Your task to perform on an android device: Search for sushi restaurants on Maps Image 0: 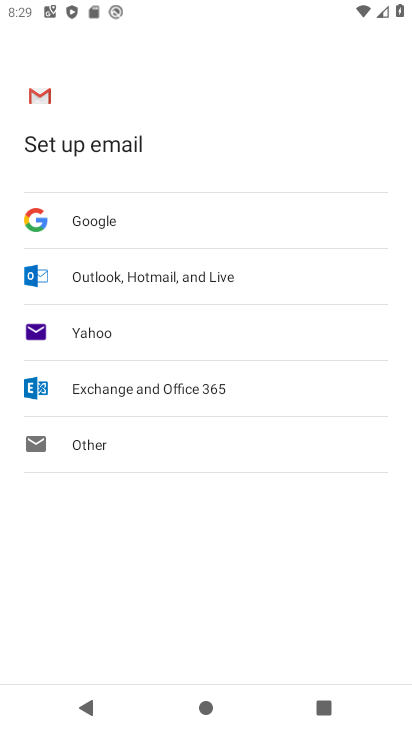
Step 0: press home button
Your task to perform on an android device: Search for sushi restaurants on Maps Image 1: 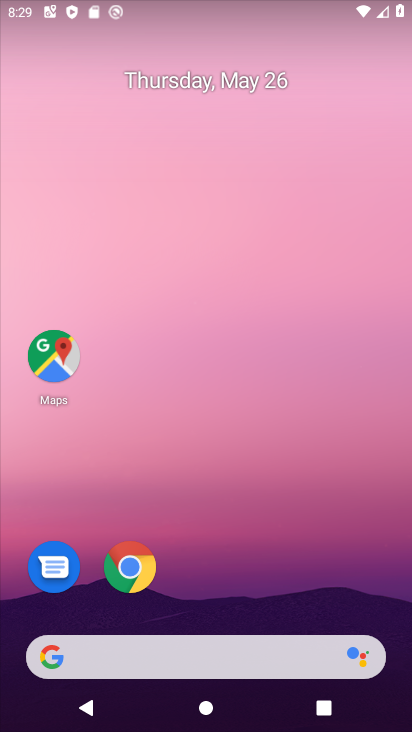
Step 1: click (50, 368)
Your task to perform on an android device: Search for sushi restaurants on Maps Image 2: 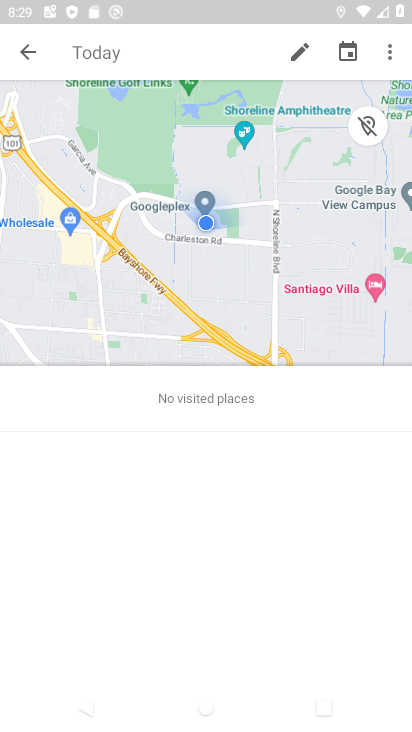
Step 2: click (28, 51)
Your task to perform on an android device: Search for sushi restaurants on Maps Image 3: 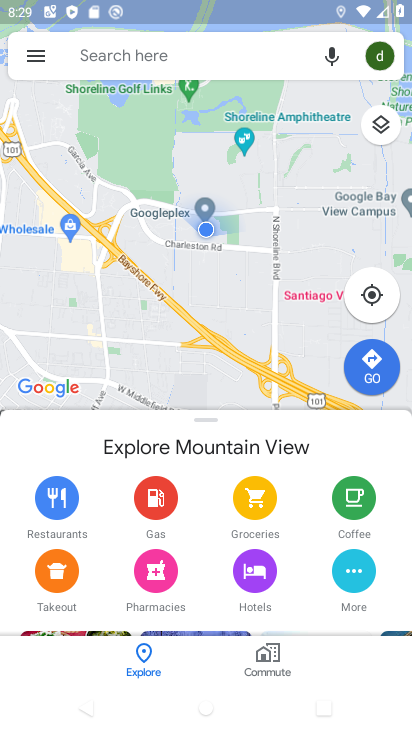
Step 3: click (127, 46)
Your task to perform on an android device: Search for sushi restaurants on Maps Image 4: 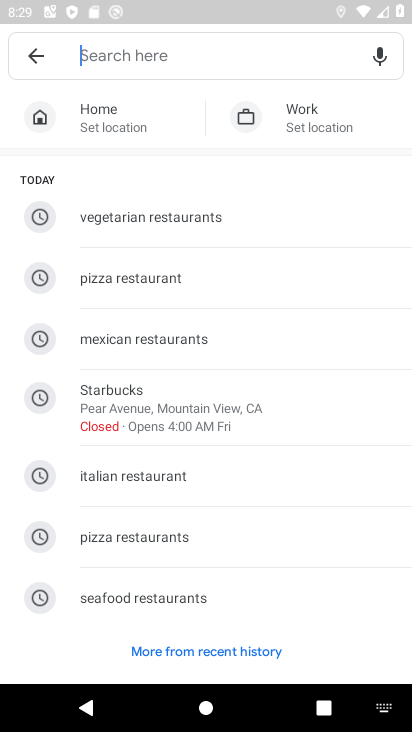
Step 4: drag from (208, 500) to (310, 221)
Your task to perform on an android device: Search for sushi restaurants on Maps Image 5: 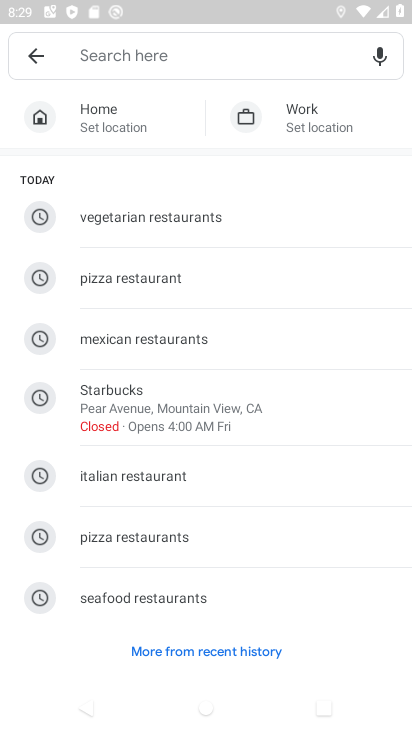
Step 5: click (181, 53)
Your task to perform on an android device: Search for sushi restaurants on Maps Image 6: 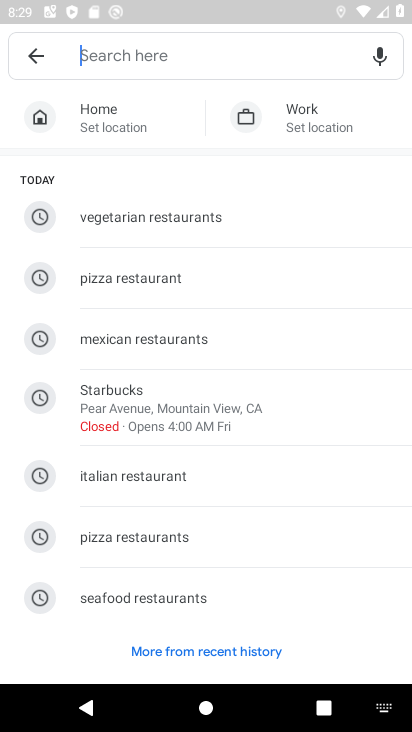
Step 6: type "sushi"
Your task to perform on an android device: Search for sushi restaurants on Maps Image 7: 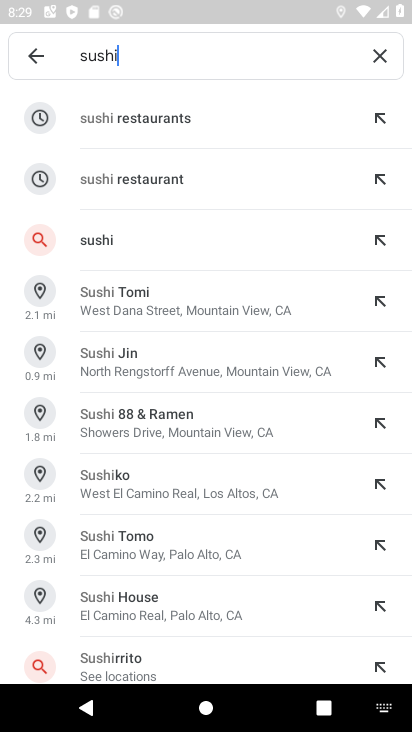
Step 7: click (109, 117)
Your task to perform on an android device: Search for sushi restaurants on Maps Image 8: 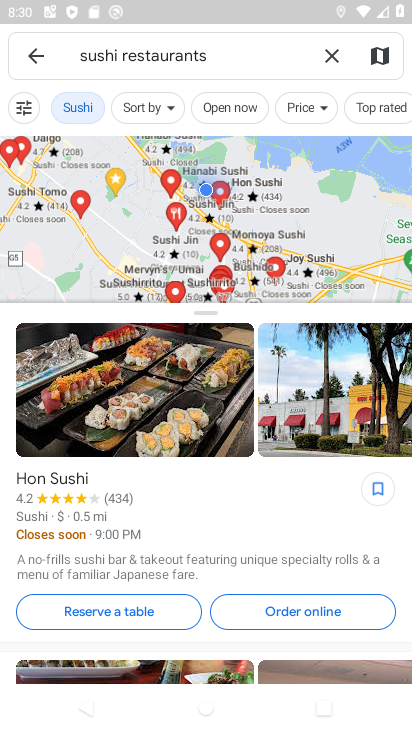
Step 8: task complete